Your task to perform on an android device: uninstall "Google Find My Device" Image 0: 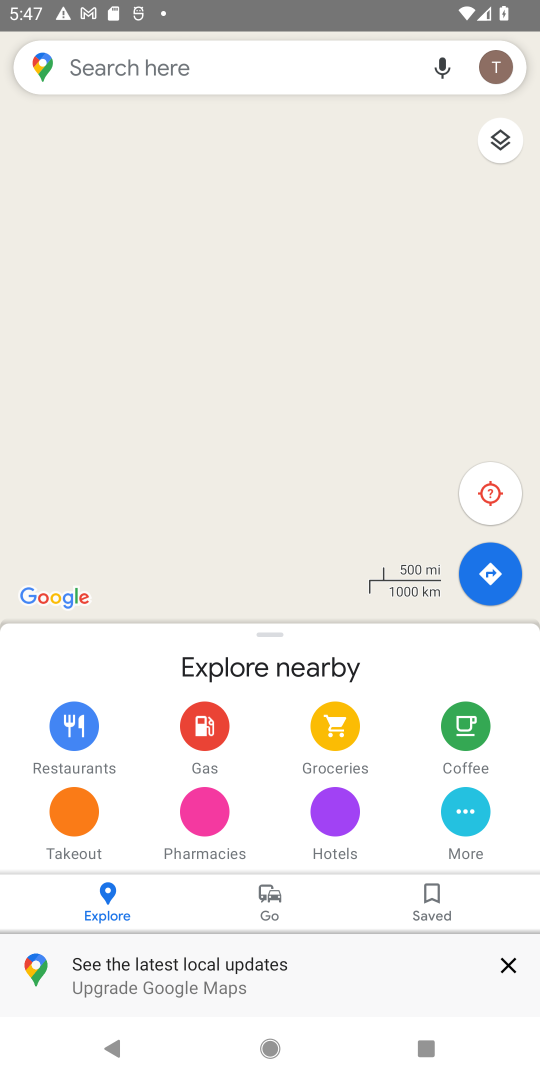
Step 0: press home button
Your task to perform on an android device: uninstall "Google Find My Device" Image 1: 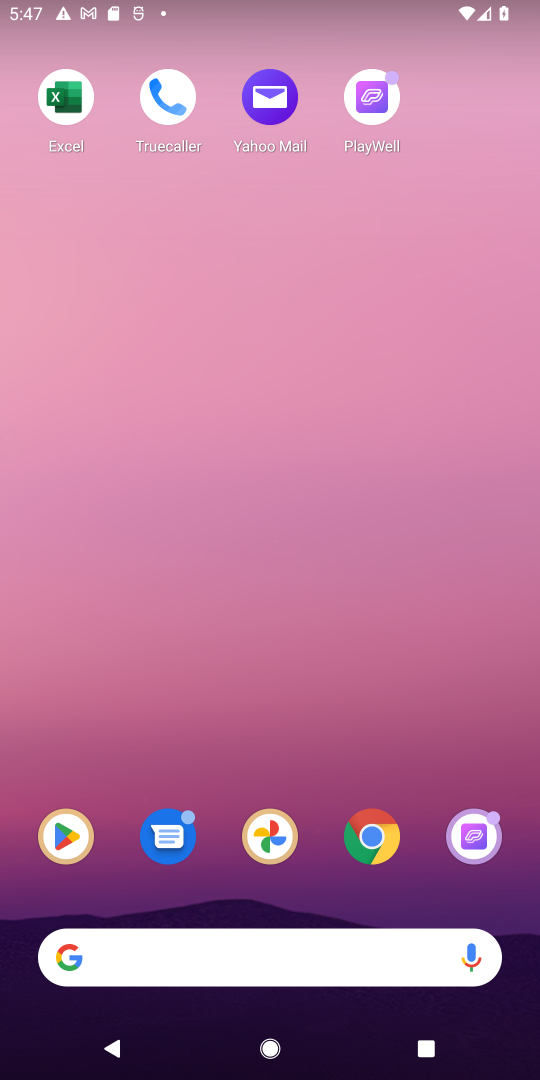
Step 1: click (67, 838)
Your task to perform on an android device: uninstall "Google Find My Device" Image 2: 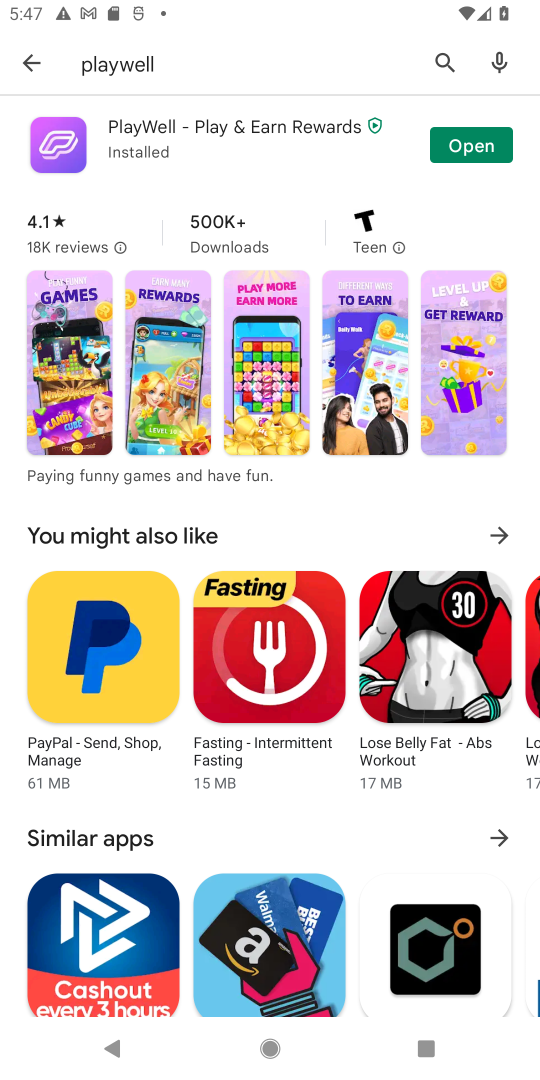
Step 2: click (434, 54)
Your task to perform on an android device: uninstall "Google Find My Device" Image 3: 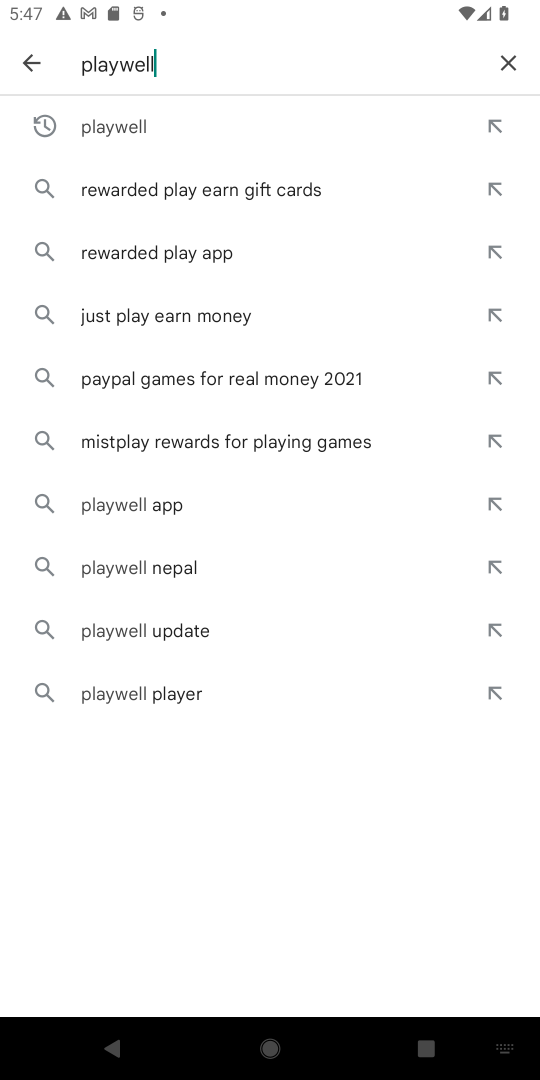
Step 3: click (505, 55)
Your task to perform on an android device: uninstall "Google Find My Device" Image 4: 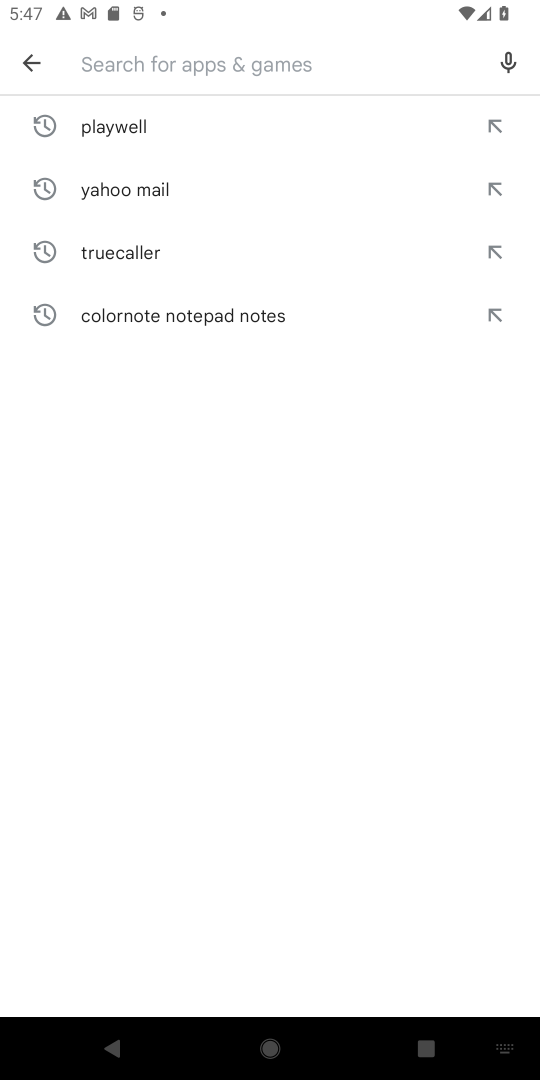
Step 4: type "Google Find My Device"
Your task to perform on an android device: uninstall "Google Find My Device" Image 5: 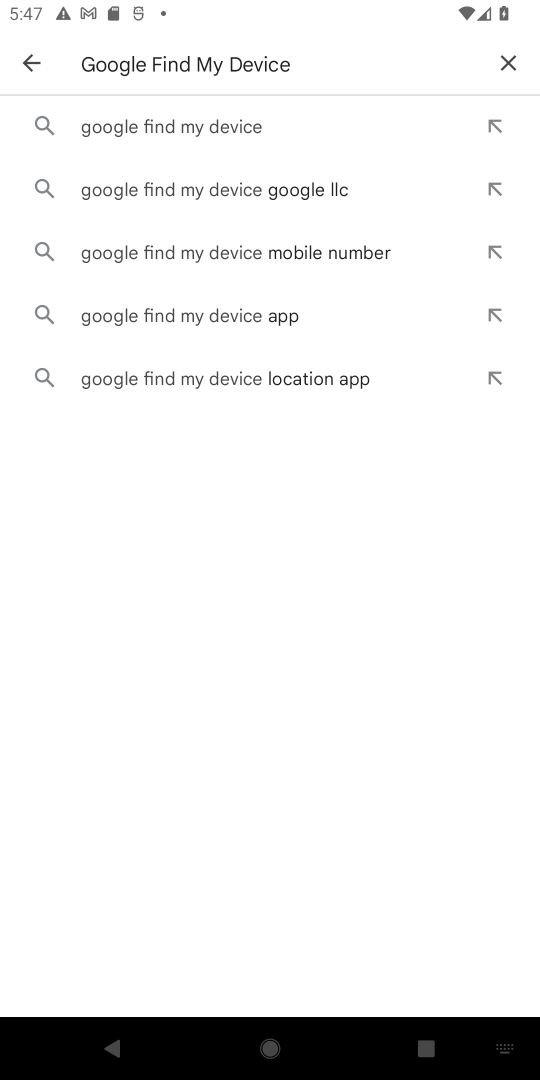
Step 5: click (166, 136)
Your task to perform on an android device: uninstall "Google Find My Device" Image 6: 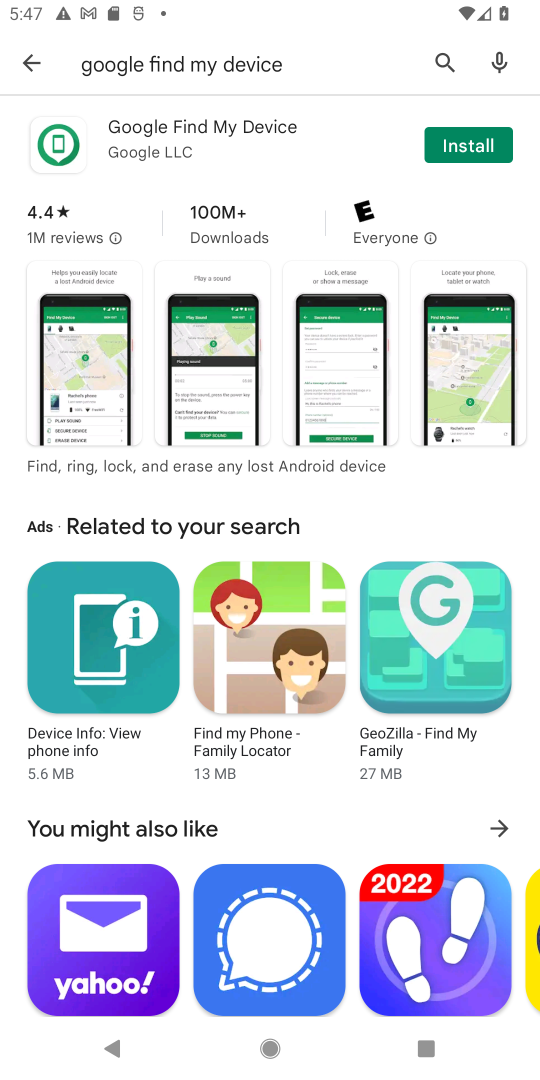
Step 6: task complete